Your task to perform on an android device: Open sound settings Image 0: 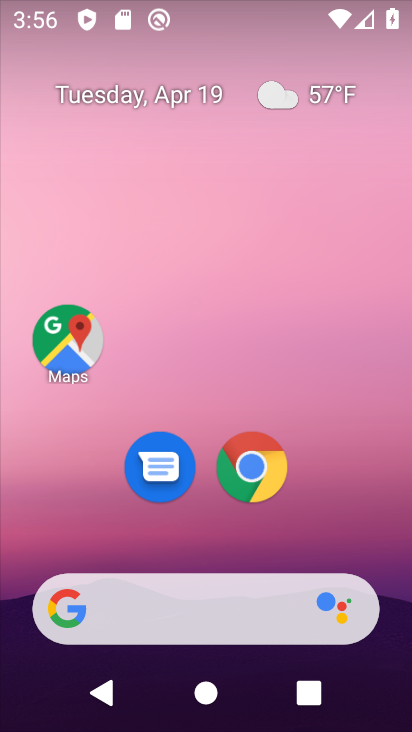
Step 0: drag from (307, 483) to (306, 246)
Your task to perform on an android device: Open sound settings Image 1: 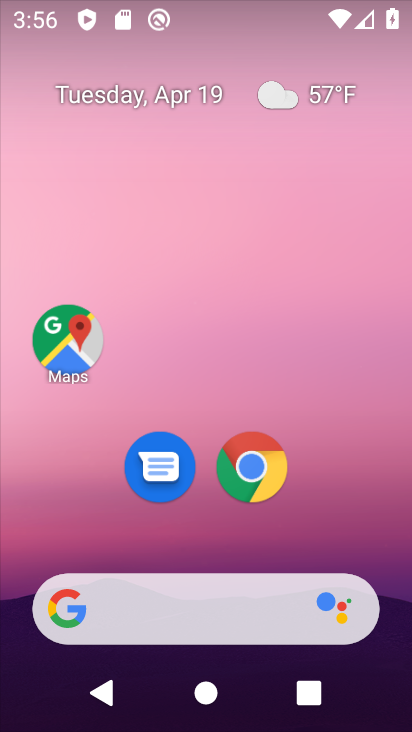
Step 1: drag from (278, 589) to (272, 279)
Your task to perform on an android device: Open sound settings Image 2: 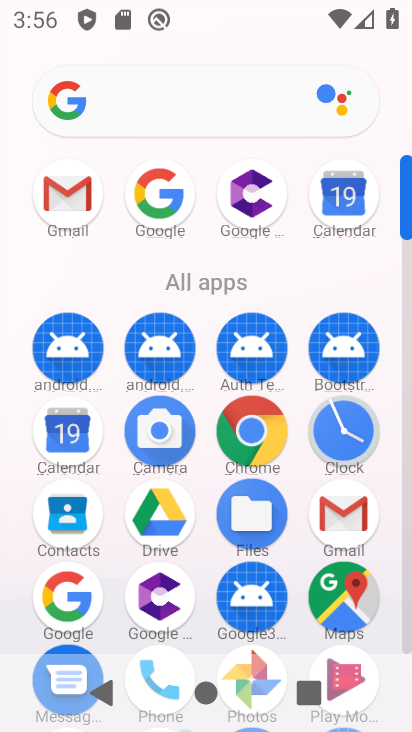
Step 2: drag from (284, 133) to (285, 81)
Your task to perform on an android device: Open sound settings Image 3: 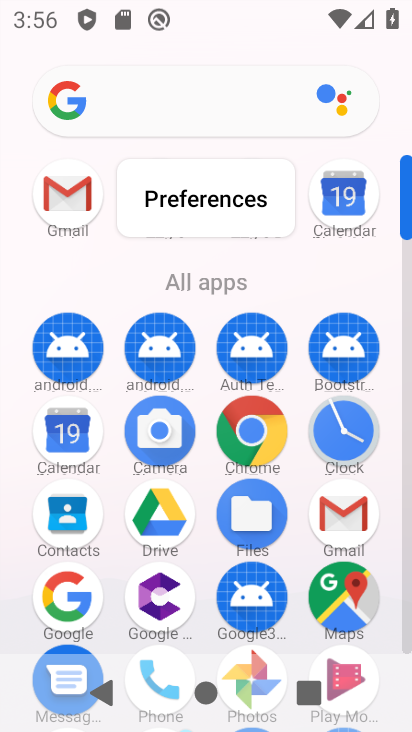
Step 3: drag from (293, 503) to (346, 90)
Your task to perform on an android device: Open sound settings Image 4: 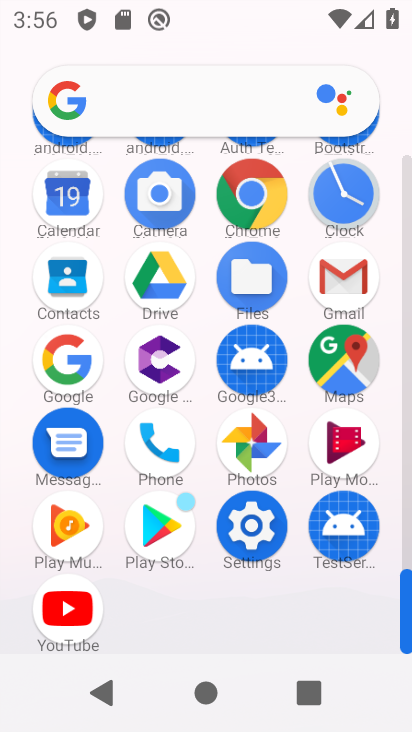
Step 4: click (270, 524)
Your task to perform on an android device: Open sound settings Image 5: 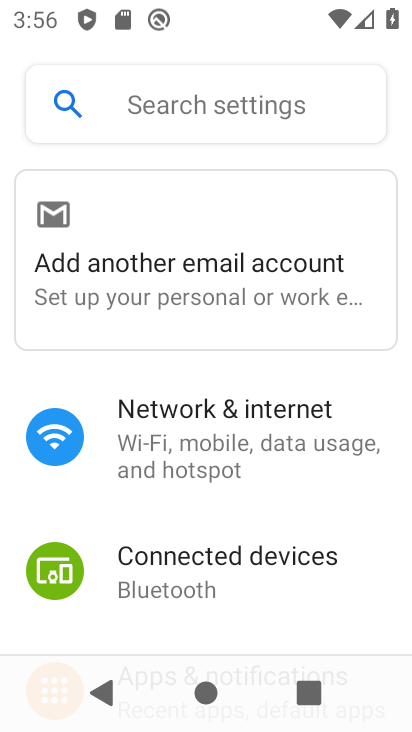
Step 5: drag from (278, 376) to (307, 184)
Your task to perform on an android device: Open sound settings Image 6: 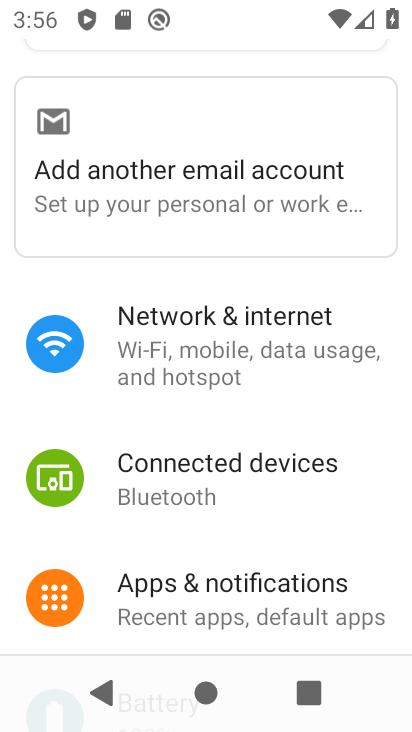
Step 6: drag from (265, 425) to (297, 221)
Your task to perform on an android device: Open sound settings Image 7: 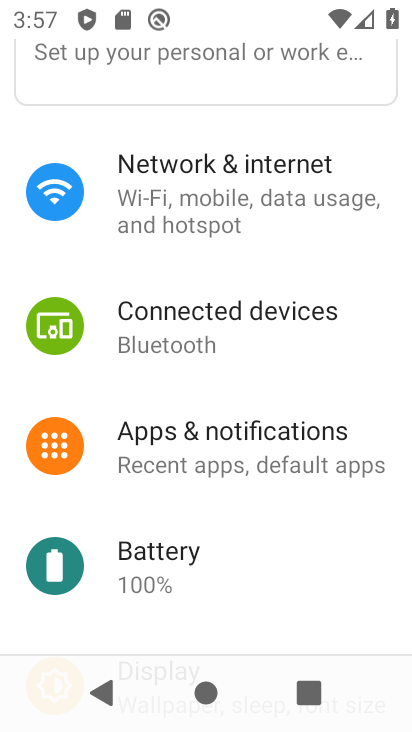
Step 7: drag from (268, 498) to (309, 224)
Your task to perform on an android device: Open sound settings Image 8: 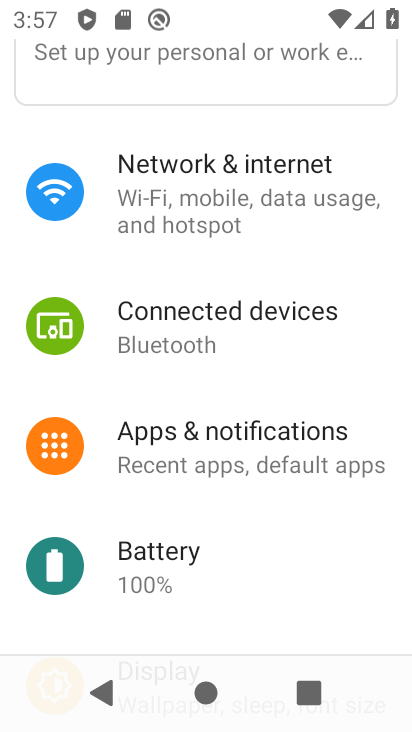
Step 8: drag from (312, 167) to (318, 96)
Your task to perform on an android device: Open sound settings Image 9: 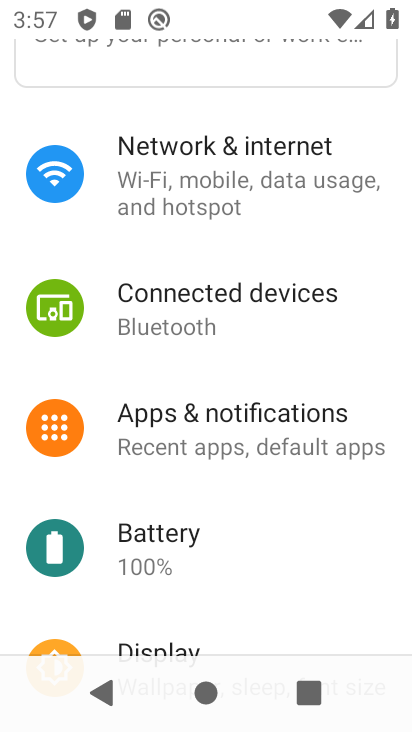
Step 9: drag from (266, 421) to (287, 185)
Your task to perform on an android device: Open sound settings Image 10: 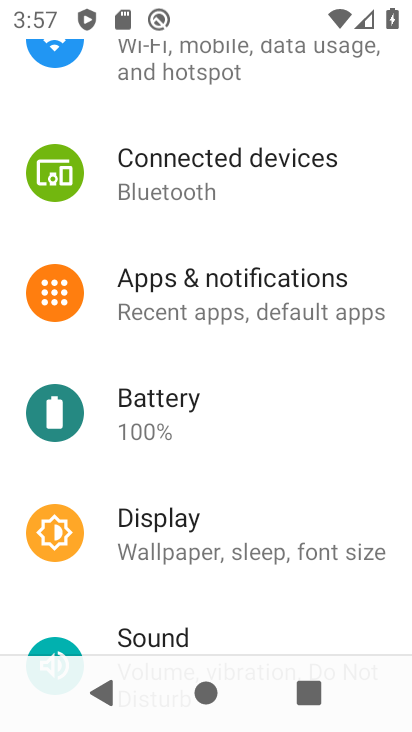
Step 10: drag from (258, 439) to (279, 312)
Your task to perform on an android device: Open sound settings Image 11: 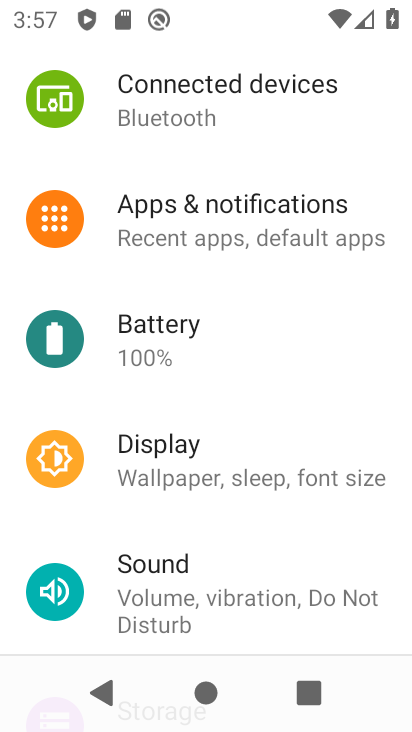
Step 11: click (223, 602)
Your task to perform on an android device: Open sound settings Image 12: 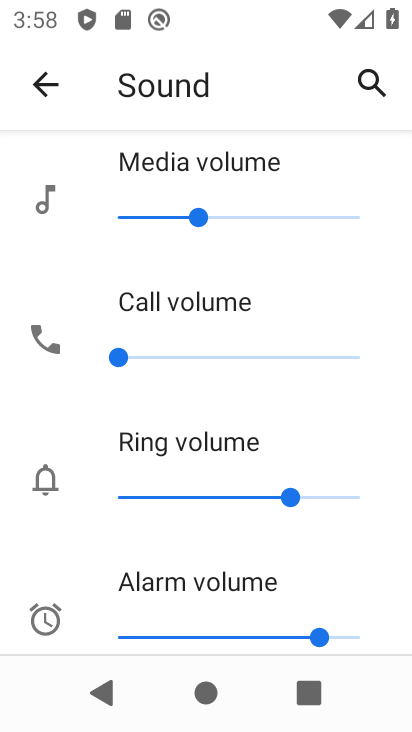
Step 12: task complete